Your task to perform on an android device: turn on airplane mode Image 0: 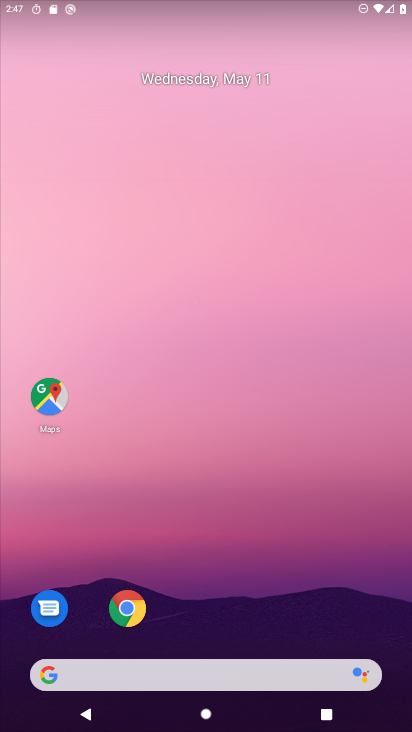
Step 0: drag from (297, 536) to (375, 104)
Your task to perform on an android device: turn on airplane mode Image 1: 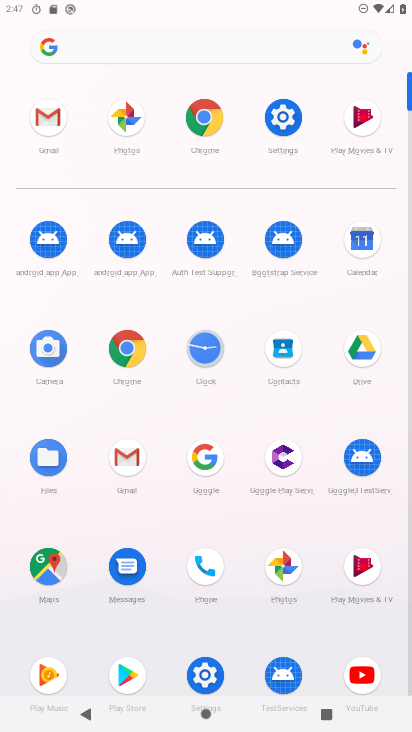
Step 1: drag from (106, 9) to (109, 375)
Your task to perform on an android device: turn on airplane mode Image 2: 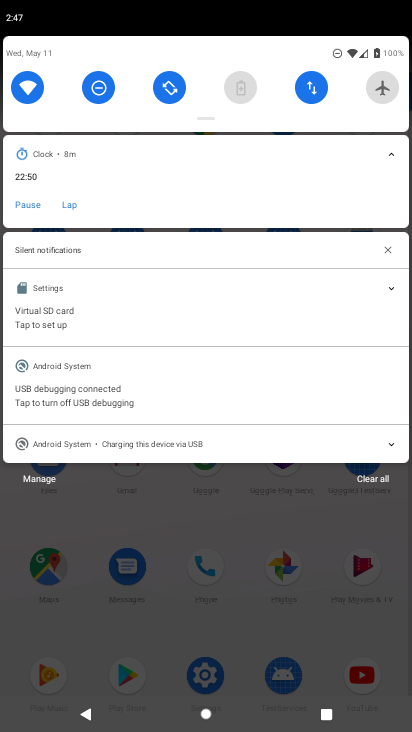
Step 2: click (394, 91)
Your task to perform on an android device: turn on airplane mode Image 3: 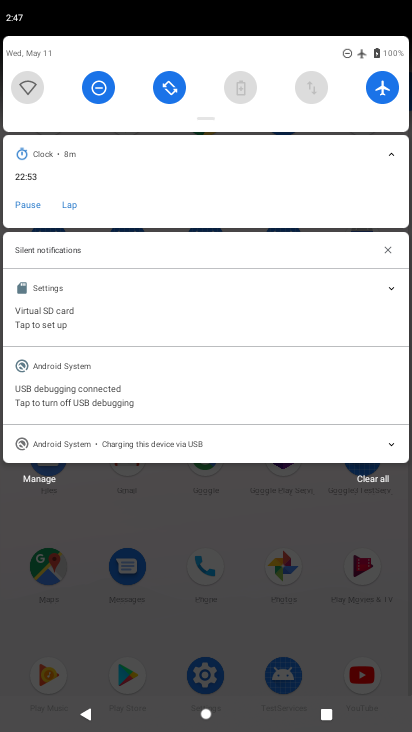
Step 3: task complete